Your task to perform on an android device: open chrome privacy settings Image 0: 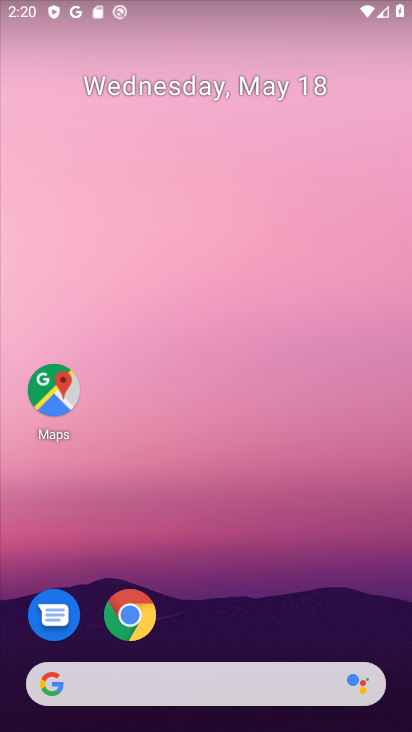
Step 0: drag from (178, 640) to (220, 225)
Your task to perform on an android device: open chrome privacy settings Image 1: 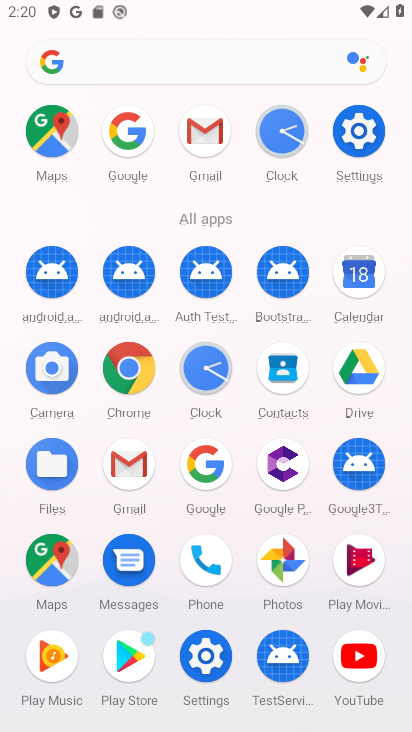
Step 1: click (125, 365)
Your task to perform on an android device: open chrome privacy settings Image 2: 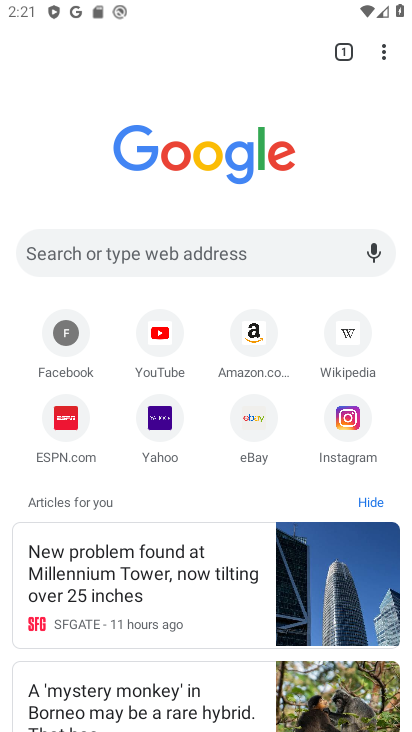
Step 2: click (380, 51)
Your task to perform on an android device: open chrome privacy settings Image 3: 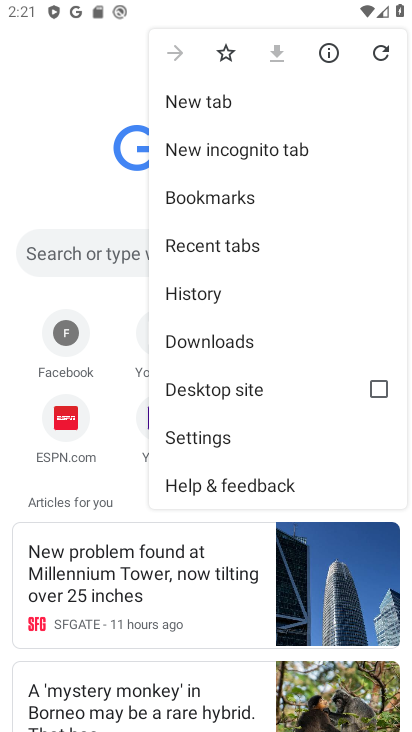
Step 3: click (235, 438)
Your task to perform on an android device: open chrome privacy settings Image 4: 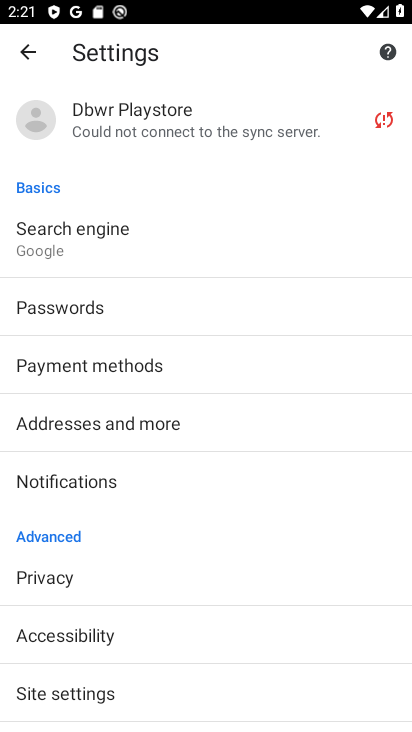
Step 4: click (75, 581)
Your task to perform on an android device: open chrome privacy settings Image 5: 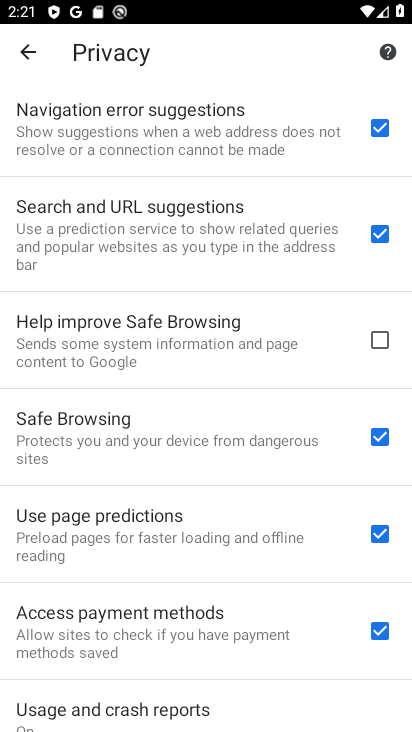
Step 5: task complete